Your task to perform on an android device: Open the calendar and show me this week's events? Image 0: 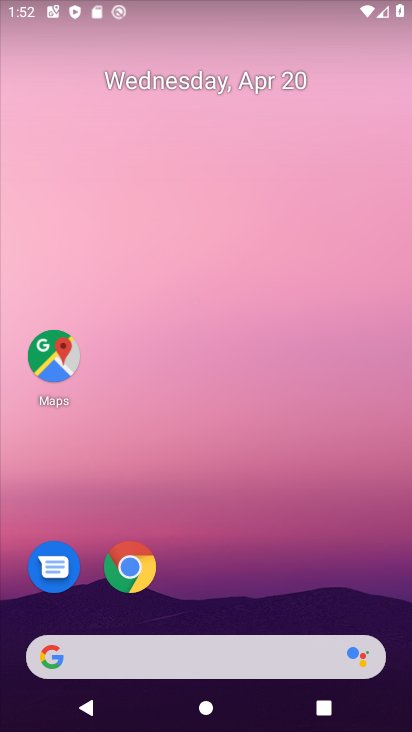
Step 0: drag from (186, 645) to (276, 141)
Your task to perform on an android device: Open the calendar and show me this week's events? Image 1: 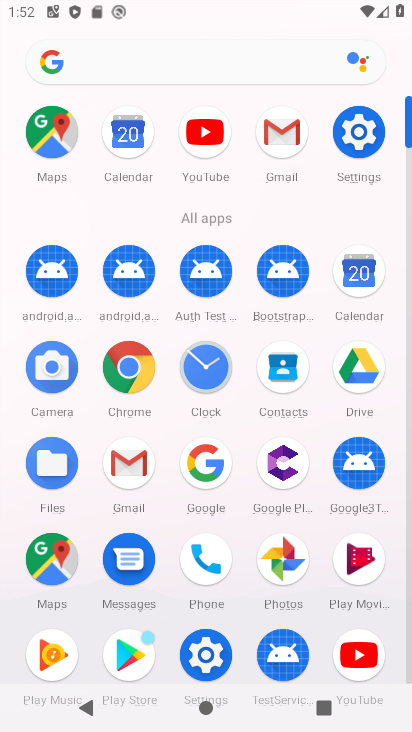
Step 1: click (351, 289)
Your task to perform on an android device: Open the calendar and show me this week's events? Image 2: 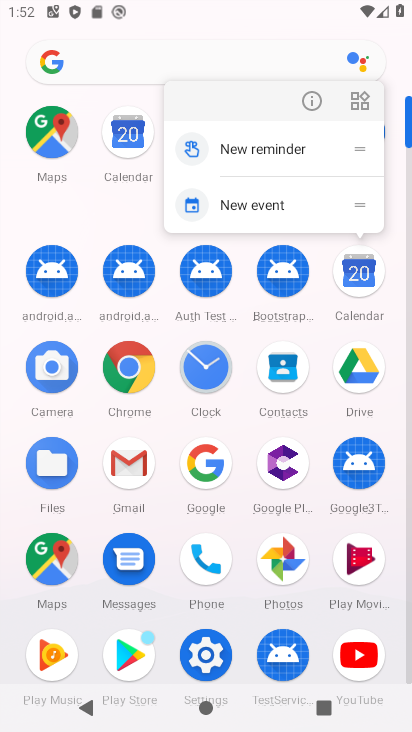
Step 2: click (399, 153)
Your task to perform on an android device: Open the calendar and show me this week's events? Image 3: 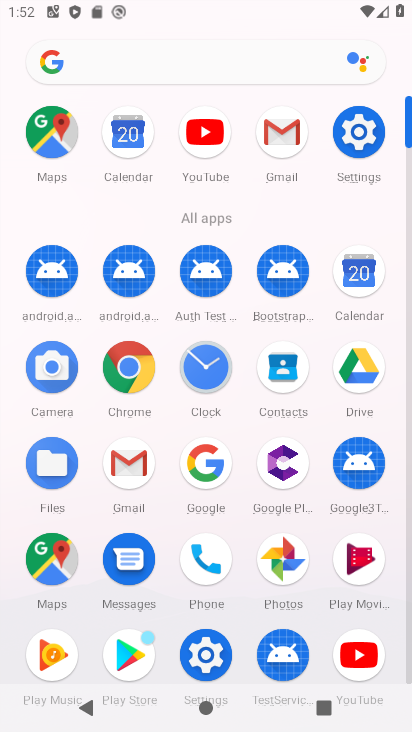
Step 3: click (368, 268)
Your task to perform on an android device: Open the calendar and show me this week's events? Image 4: 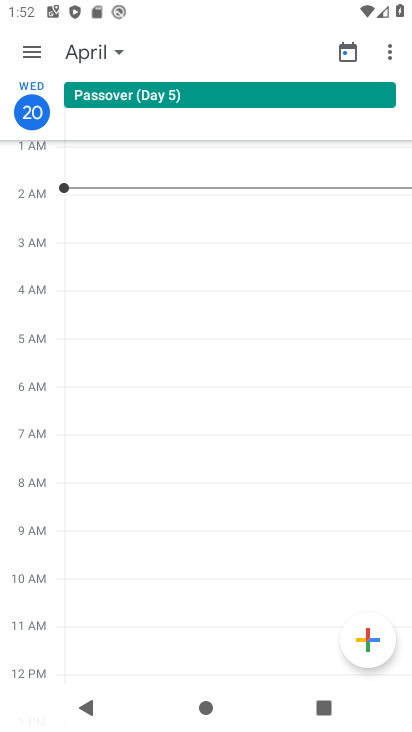
Step 4: click (34, 46)
Your task to perform on an android device: Open the calendar and show me this week's events? Image 5: 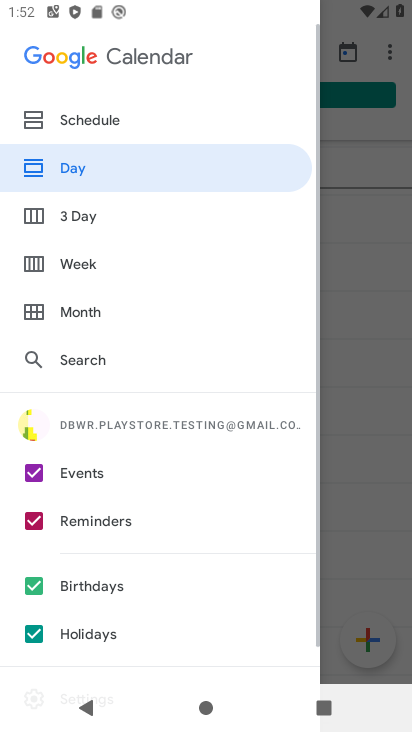
Step 5: click (90, 269)
Your task to perform on an android device: Open the calendar and show me this week's events? Image 6: 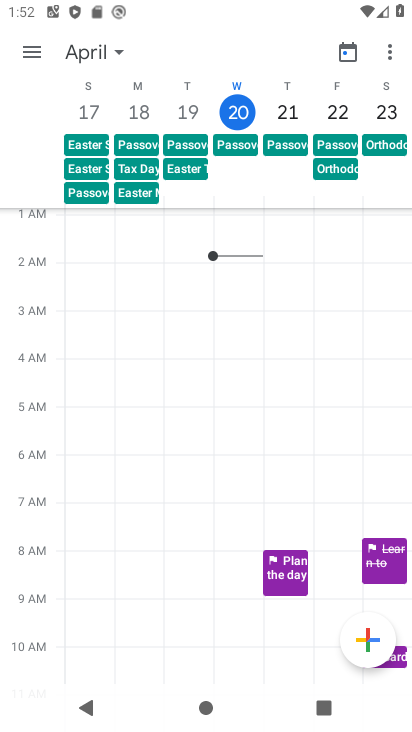
Step 6: task complete